Your task to perform on an android device: turn off notifications in google photos Image 0: 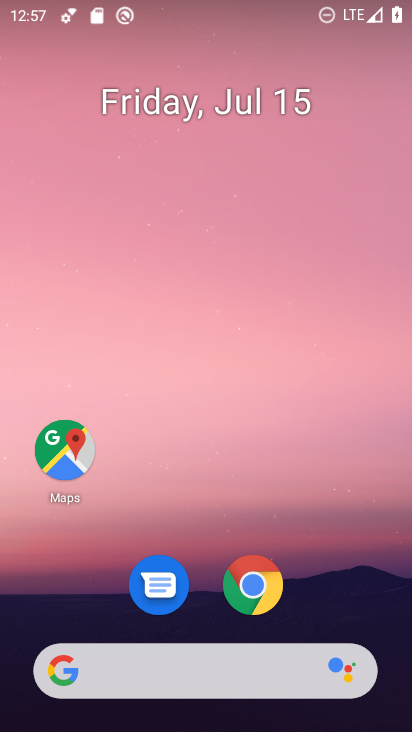
Step 0: drag from (232, 530) to (223, 84)
Your task to perform on an android device: turn off notifications in google photos Image 1: 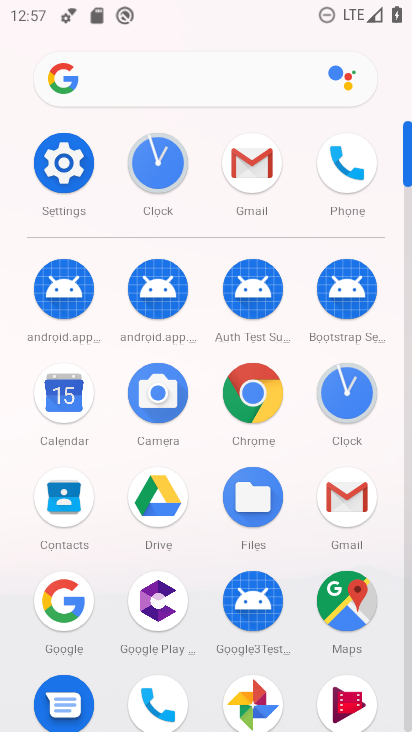
Step 1: drag from (207, 501) to (201, 253)
Your task to perform on an android device: turn off notifications in google photos Image 2: 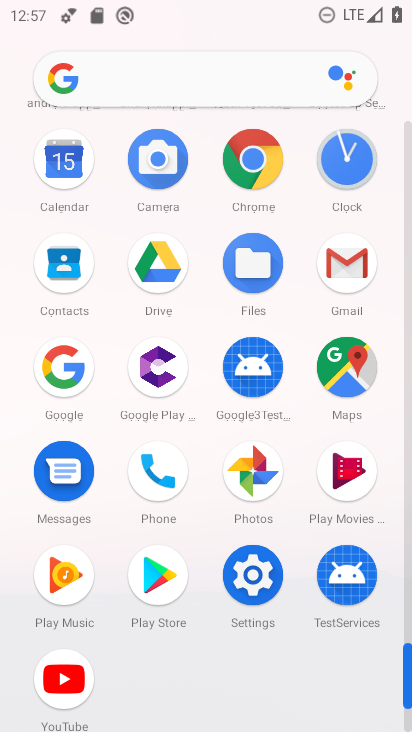
Step 2: click (245, 465)
Your task to perform on an android device: turn off notifications in google photos Image 3: 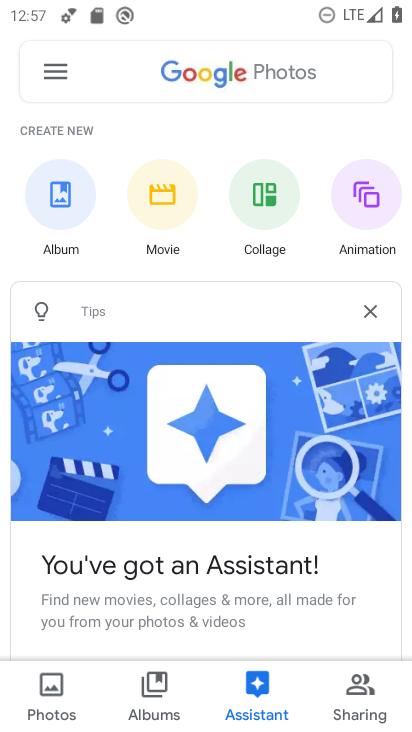
Step 3: click (54, 59)
Your task to perform on an android device: turn off notifications in google photos Image 4: 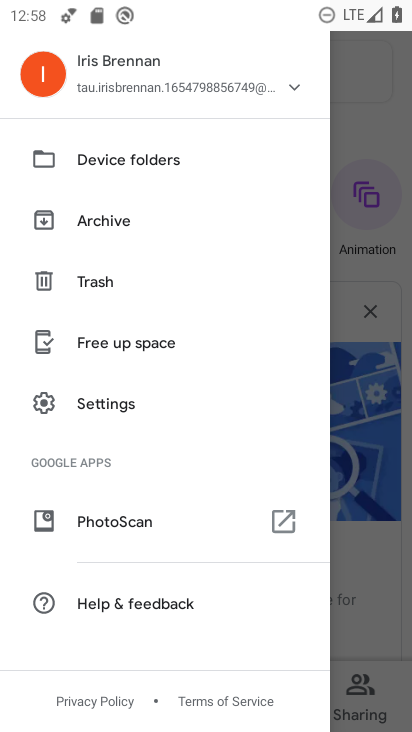
Step 4: click (107, 394)
Your task to perform on an android device: turn off notifications in google photos Image 5: 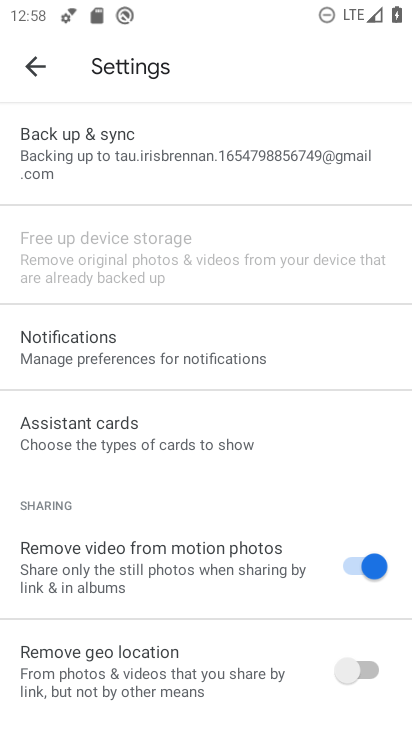
Step 5: click (136, 349)
Your task to perform on an android device: turn off notifications in google photos Image 6: 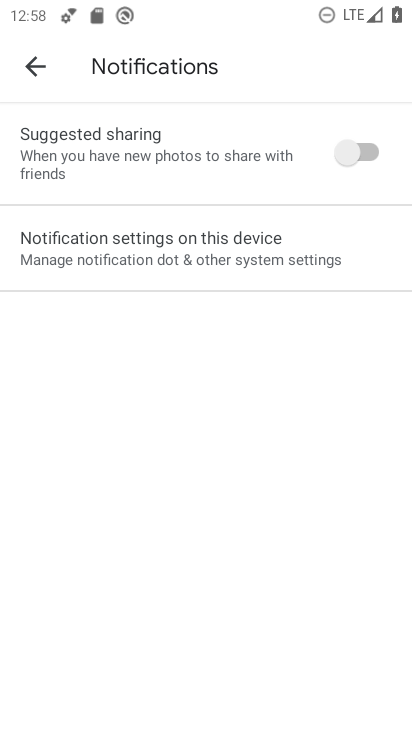
Step 6: task complete